Your task to perform on an android device: set the timer Image 0: 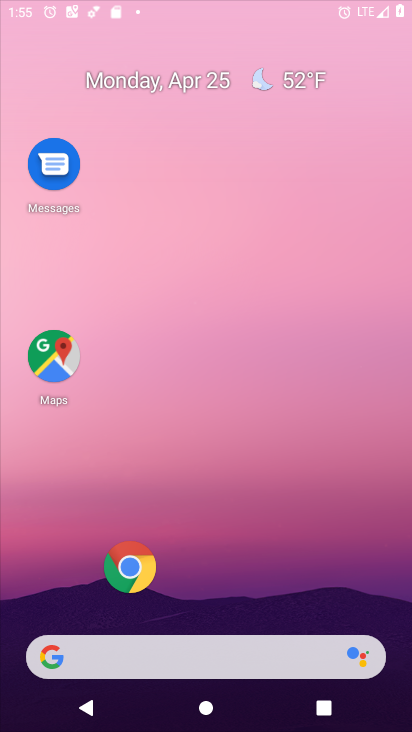
Step 0: click (309, 147)
Your task to perform on an android device: set the timer Image 1: 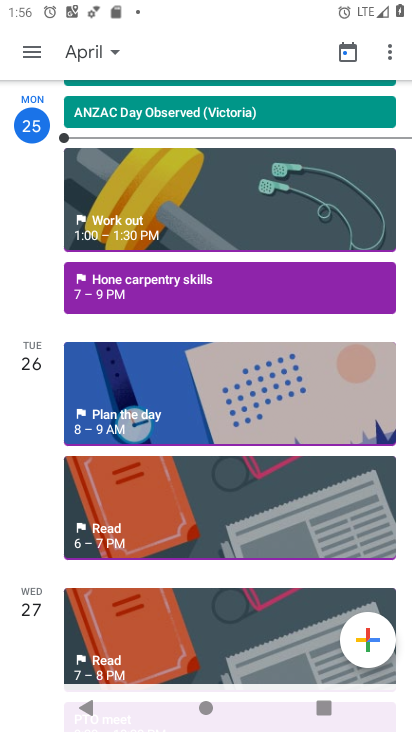
Step 1: press home button
Your task to perform on an android device: set the timer Image 2: 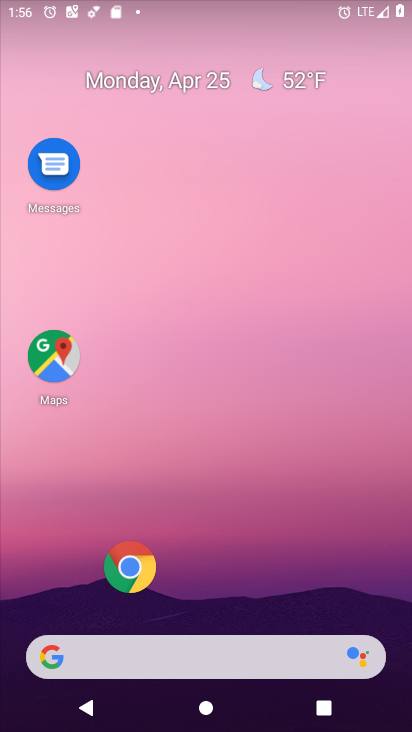
Step 2: drag from (249, 622) to (268, 198)
Your task to perform on an android device: set the timer Image 3: 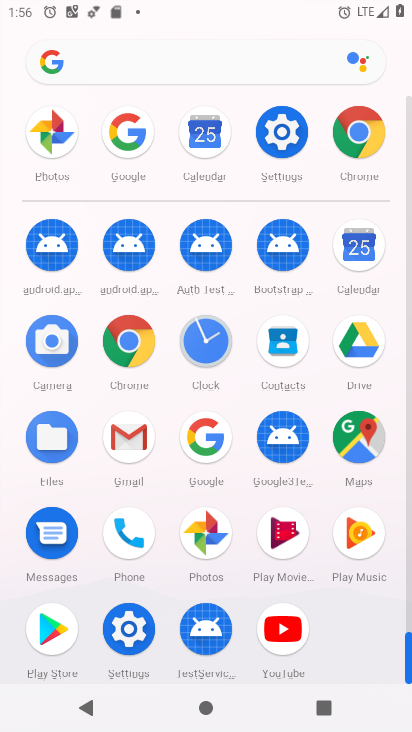
Step 3: click (211, 338)
Your task to perform on an android device: set the timer Image 4: 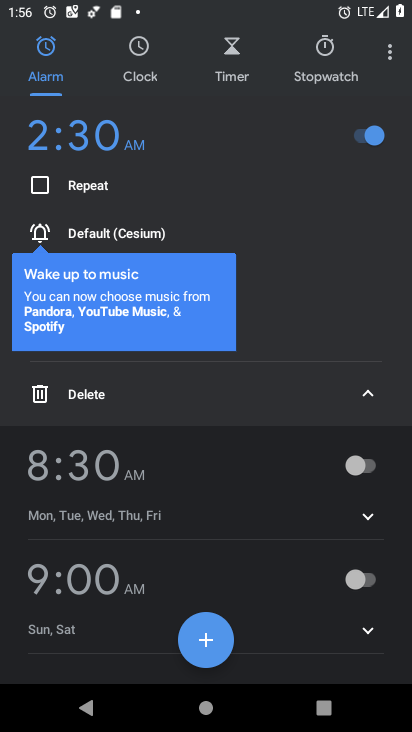
Step 4: click (227, 78)
Your task to perform on an android device: set the timer Image 5: 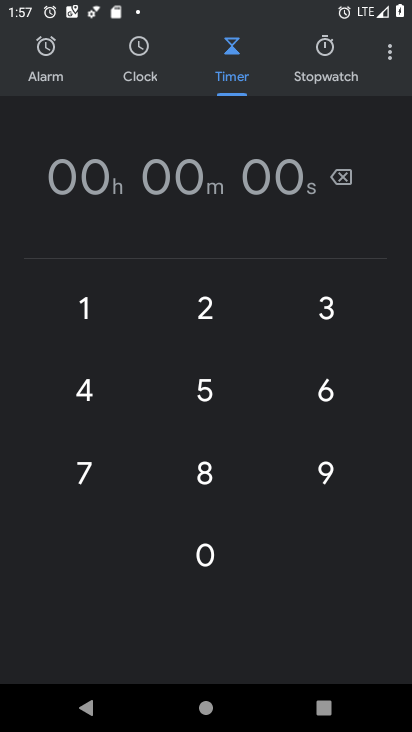
Step 5: click (223, 337)
Your task to perform on an android device: set the timer Image 6: 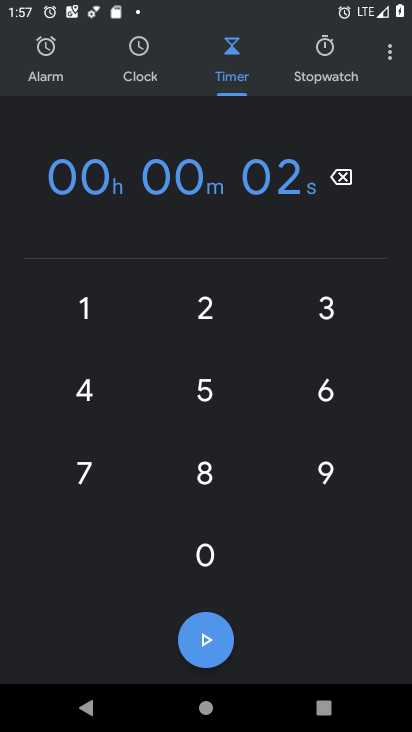
Step 6: click (195, 625)
Your task to perform on an android device: set the timer Image 7: 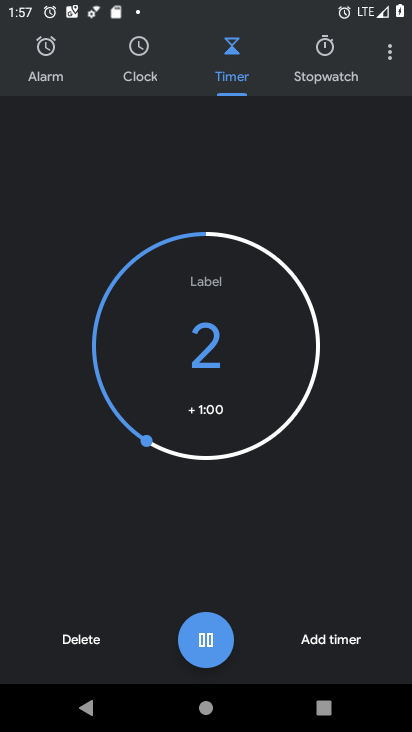
Step 7: task complete